Your task to perform on an android device: Go to location settings Image 0: 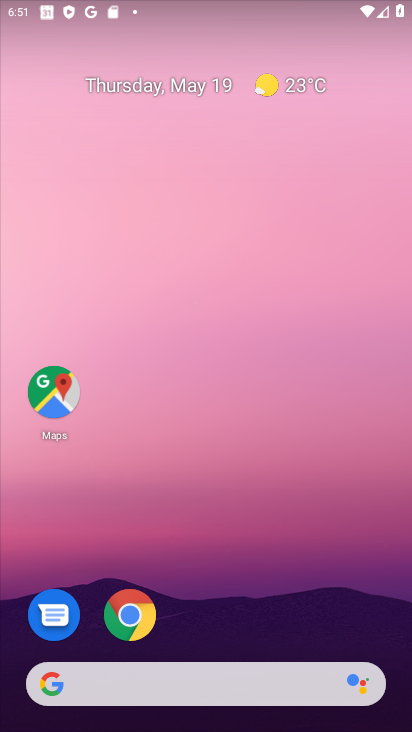
Step 0: drag from (350, 614) to (257, 26)
Your task to perform on an android device: Go to location settings Image 1: 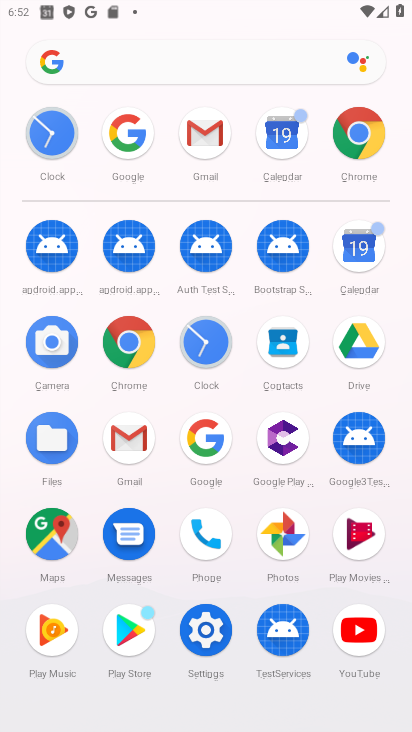
Step 1: click (186, 628)
Your task to perform on an android device: Go to location settings Image 2: 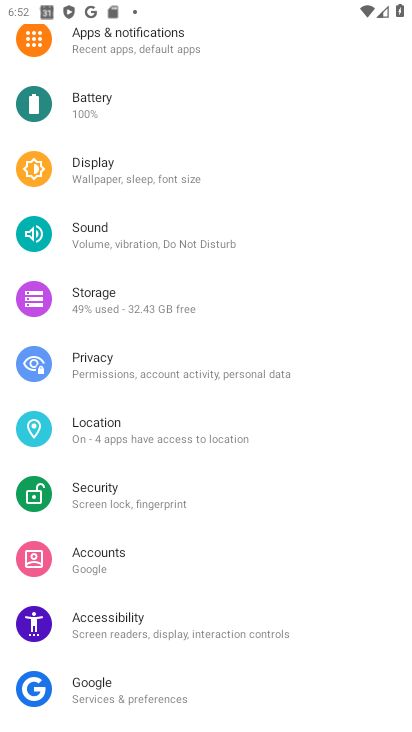
Step 2: click (106, 431)
Your task to perform on an android device: Go to location settings Image 3: 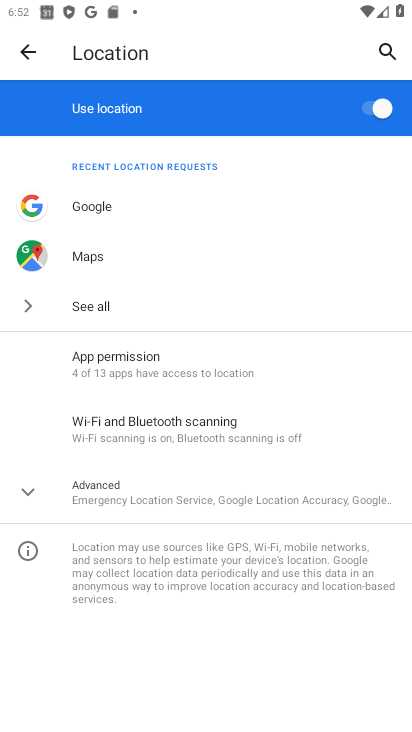
Step 3: task complete